Your task to perform on an android device: check out phone information Image 0: 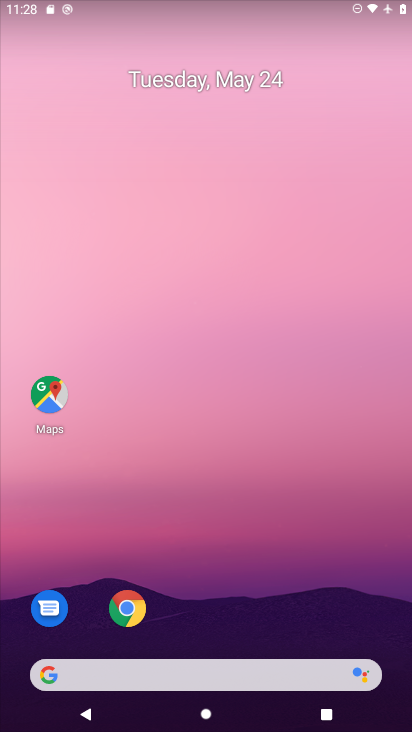
Step 0: drag from (384, 636) to (330, 206)
Your task to perform on an android device: check out phone information Image 1: 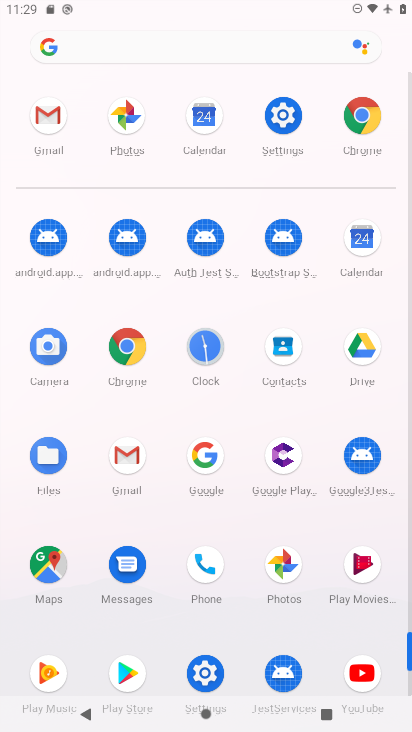
Step 1: click (410, 684)
Your task to perform on an android device: check out phone information Image 2: 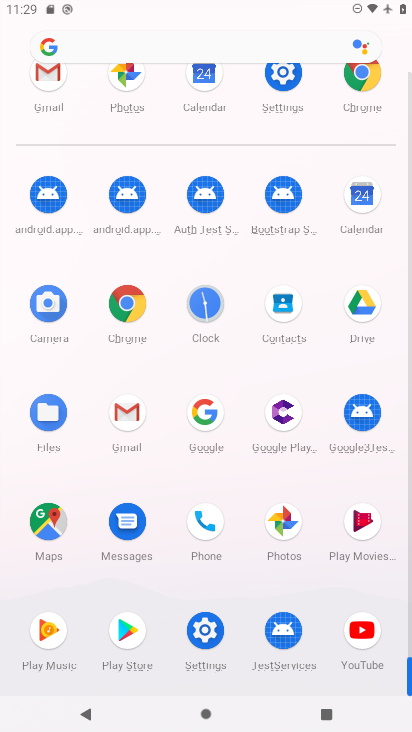
Step 2: click (208, 630)
Your task to perform on an android device: check out phone information Image 3: 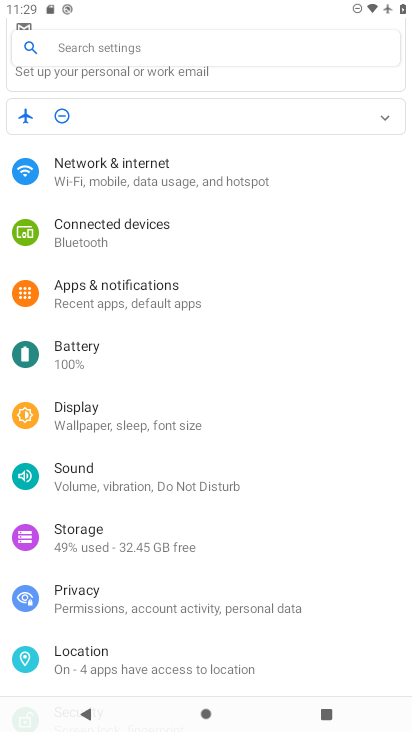
Step 3: drag from (194, 543) to (219, 270)
Your task to perform on an android device: check out phone information Image 4: 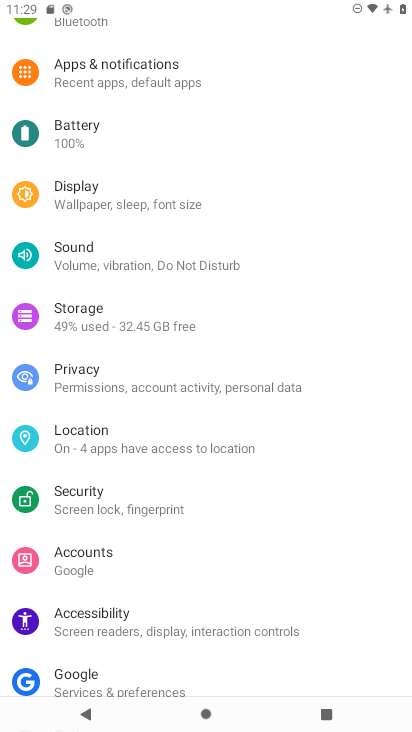
Step 4: drag from (297, 622) to (305, 245)
Your task to perform on an android device: check out phone information Image 5: 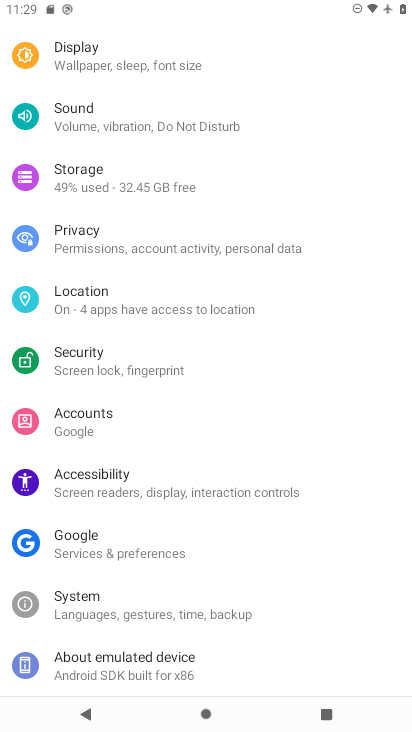
Step 5: click (118, 669)
Your task to perform on an android device: check out phone information Image 6: 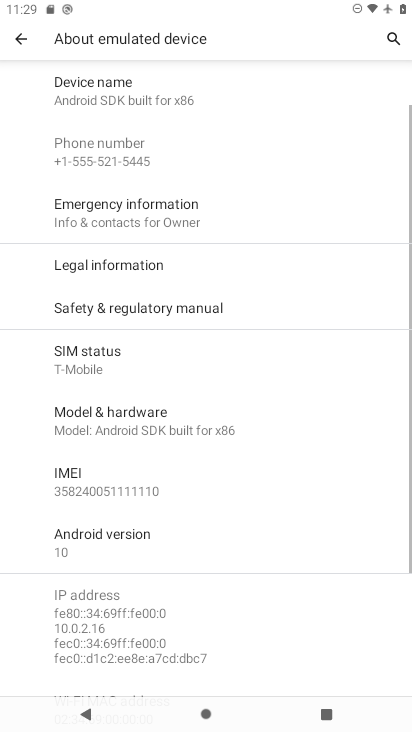
Step 6: task complete